Your task to perform on an android device: turn on improve location accuracy Image 0: 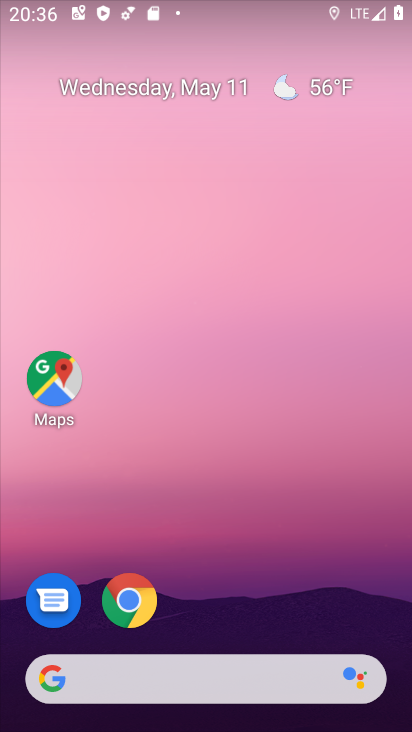
Step 0: drag from (242, 540) to (213, 31)
Your task to perform on an android device: turn on improve location accuracy Image 1: 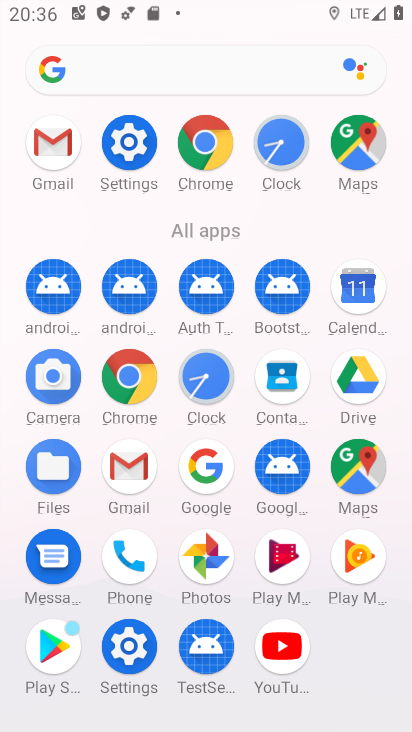
Step 1: click (129, 141)
Your task to perform on an android device: turn on improve location accuracy Image 2: 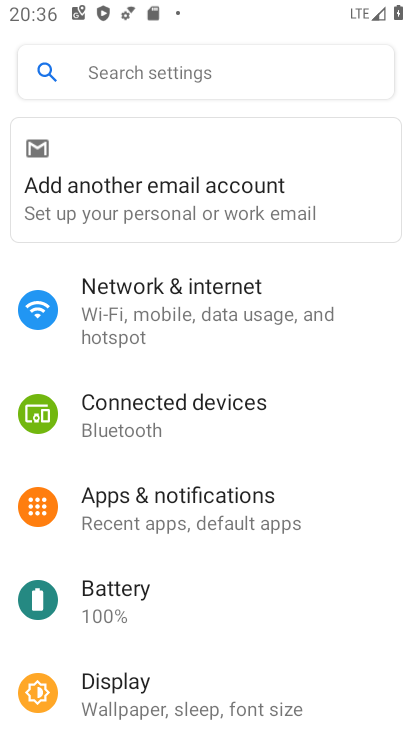
Step 2: drag from (202, 618) to (232, 455)
Your task to perform on an android device: turn on improve location accuracy Image 3: 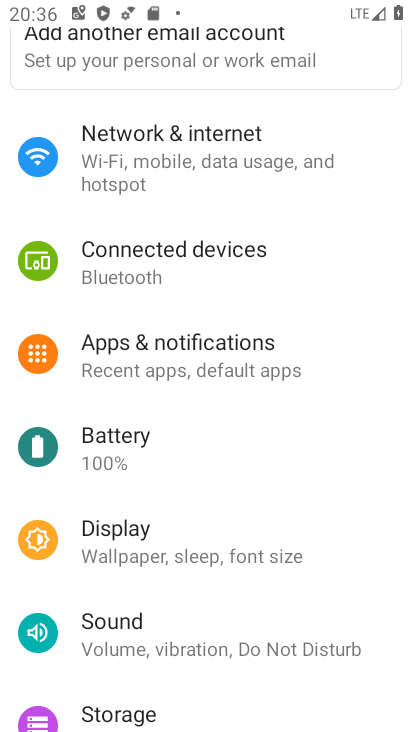
Step 3: drag from (220, 604) to (273, 504)
Your task to perform on an android device: turn on improve location accuracy Image 4: 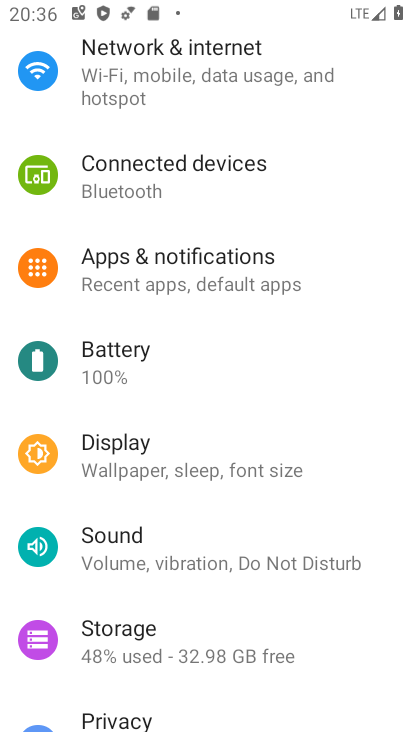
Step 4: drag from (213, 616) to (282, 465)
Your task to perform on an android device: turn on improve location accuracy Image 5: 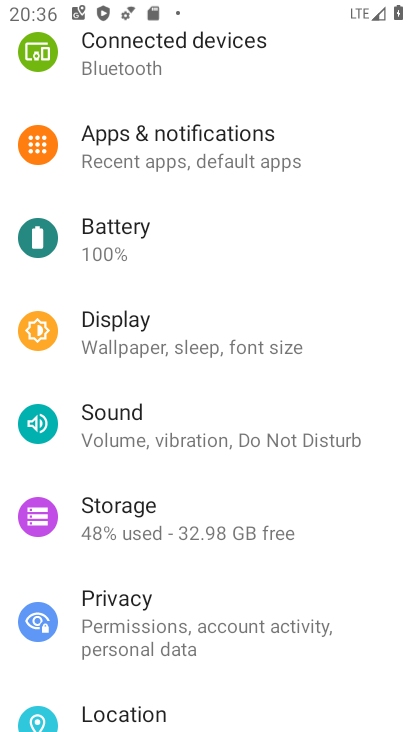
Step 5: drag from (192, 599) to (272, 423)
Your task to perform on an android device: turn on improve location accuracy Image 6: 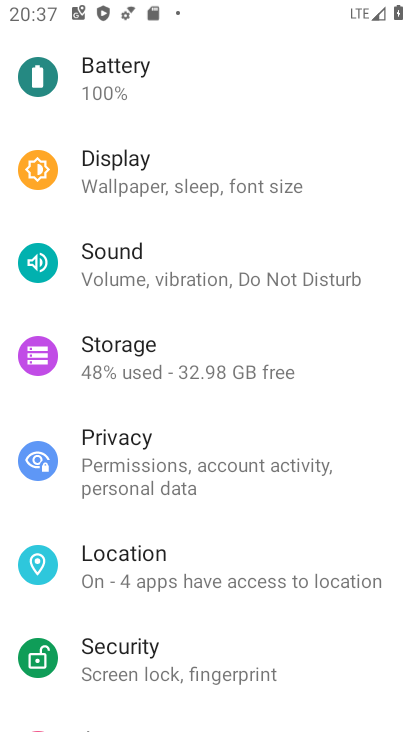
Step 6: click (146, 562)
Your task to perform on an android device: turn on improve location accuracy Image 7: 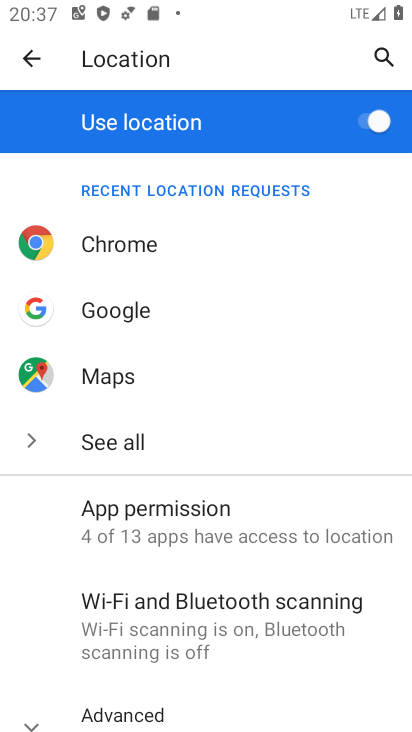
Step 7: drag from (276, 459) to (336, 202)
Your task to perform on an android device: turn on improve location accuracy Image 8: 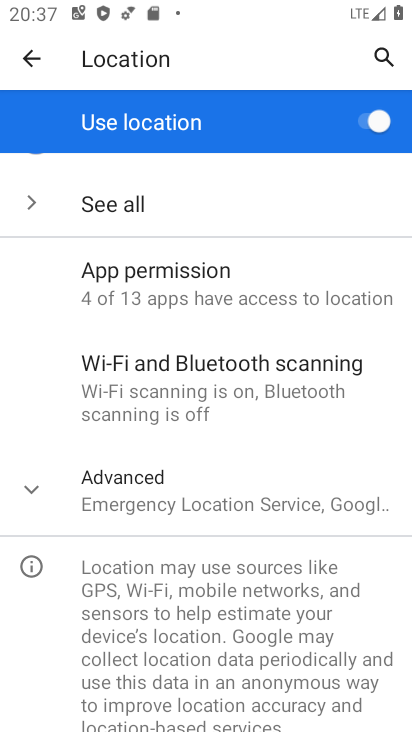
Step 8: click (235, 510)
Your task to perform on an android device: turn on improve location accuracy Image 9: 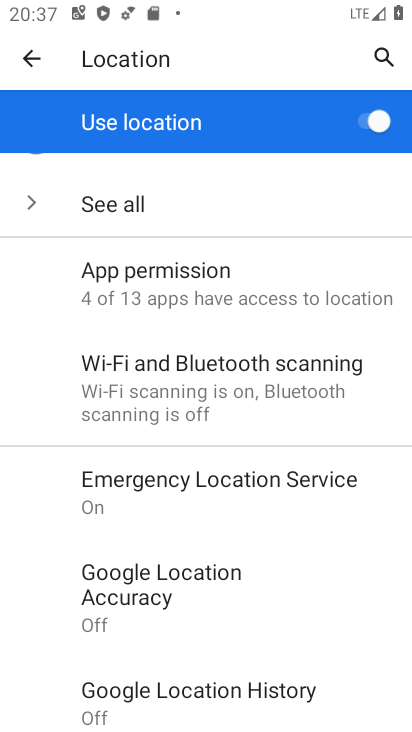
Step 9: click (213, 572)
Your task to perform on an android device: turn on improve location accuracy Image 10: 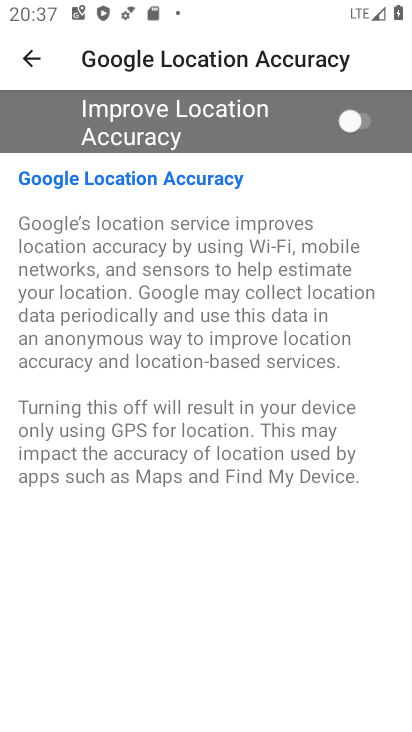
Step 10: click (354, 126)
Your task to perform on an android device: turn on improve location accuracy Image 11: 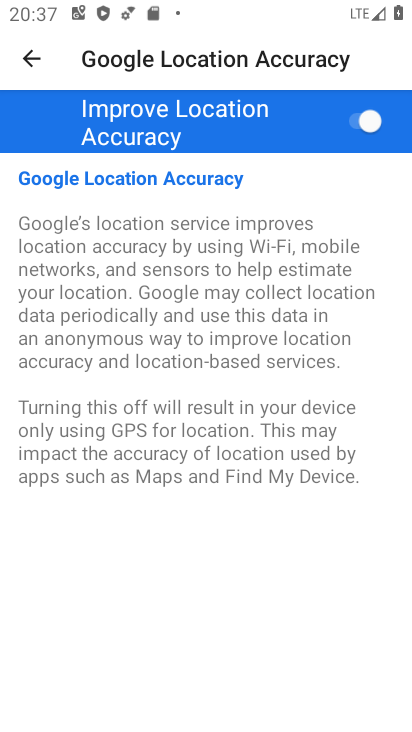
Step 11: task complete